Your task to perform on an android device: Open the map Image 0: 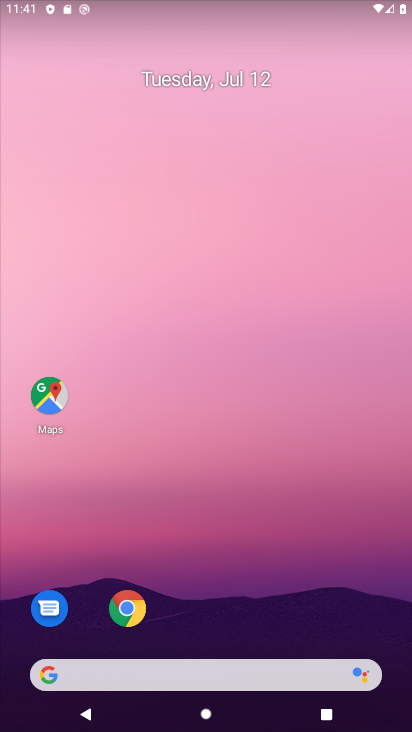
Step 0: click (55, 395)
Your task to perform on an android device: Open the map Image 1: 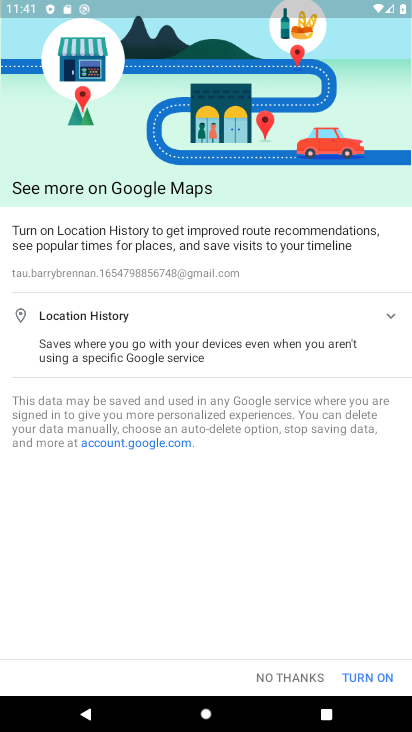
Step 1: task complete